Your task to perform on an android device: open wifi settings Image 0: 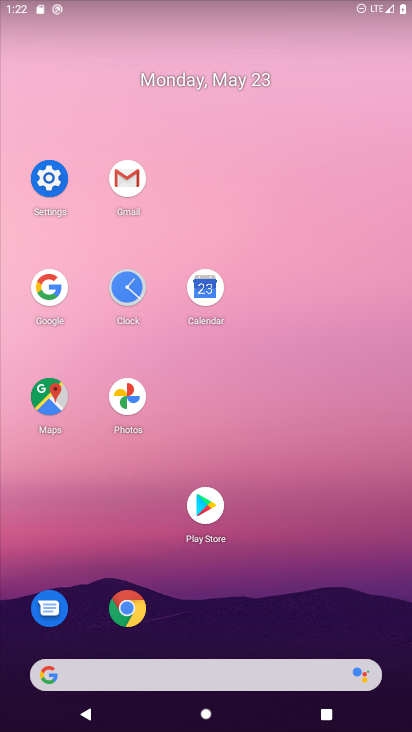
Step 0: click (54, 183)
Your task to perform on an android device: open wifi settings Image 1: 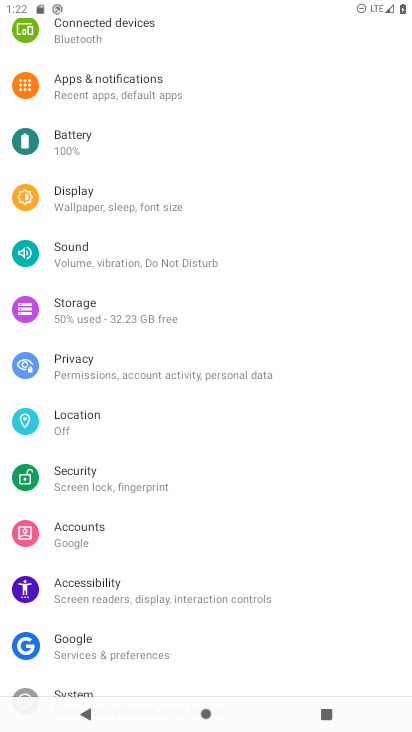
Step 1: drag from (201, 140) to (166, 494)
Your task to perform on an android device: open wifi settings Image 2: 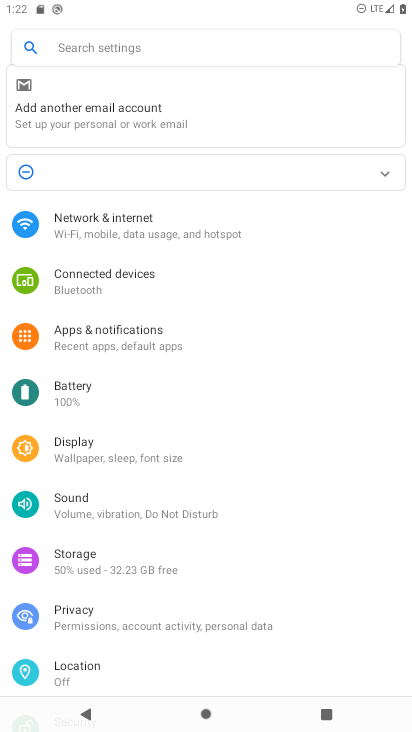
Step 2: click (161, 219)
Your task to perform on an android device: open wifi settings Image 3: 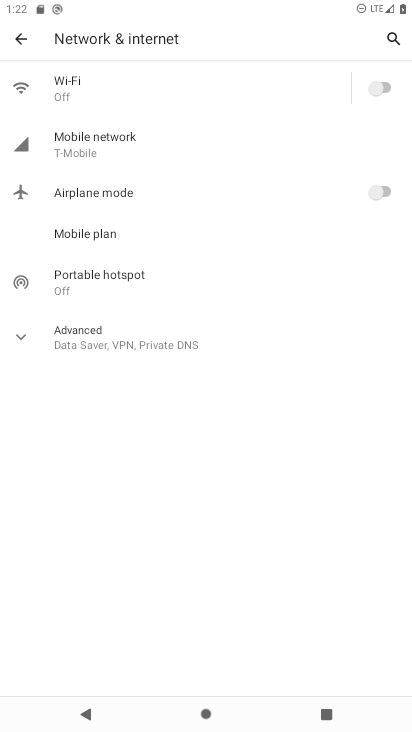
Step 3: click (137, 96)
Your task to perform on an android device: open wifi settings Image 4: 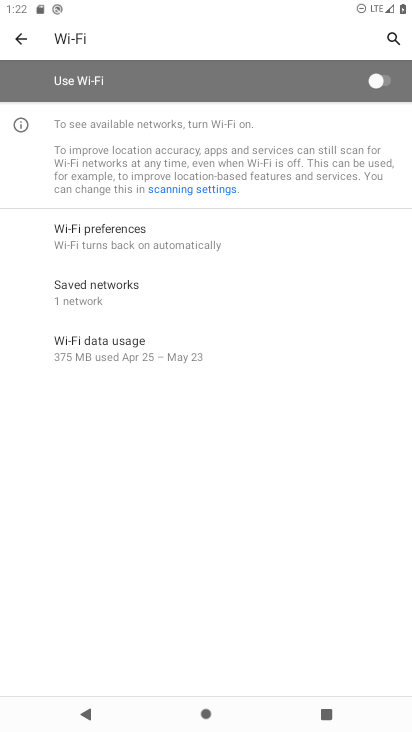
Step 4: click (351, 81)
Your task to perform on an android device: open wifi settings Image 5: 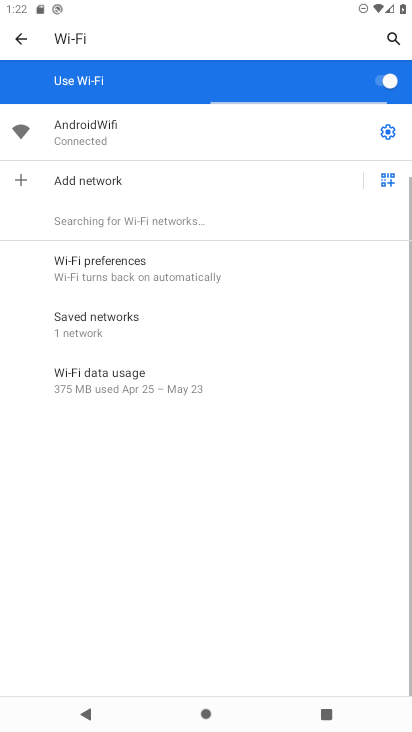
Step 5: click (386, 126)
Your task to perform on an android device: open wifi settings Image 6: 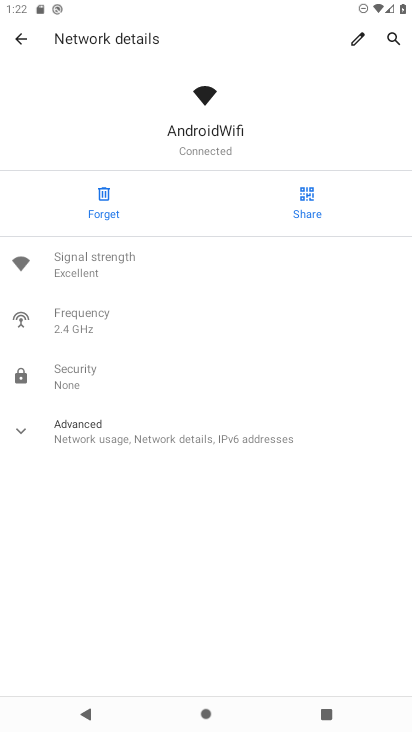
Step 6: task complete